Your task to perform on an android device: Open calendar and show me the second week of next month Image 0: 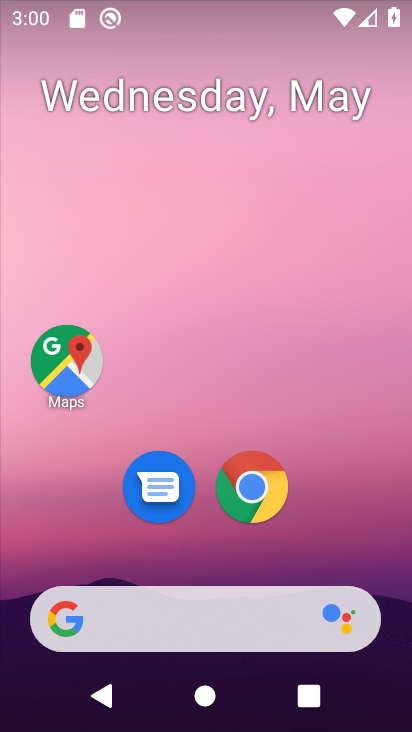
Step 0: drag from (343, 564) to (220, 8)
Your task to perform on an android device: Open calendar and show me the second week of next month Image 1: 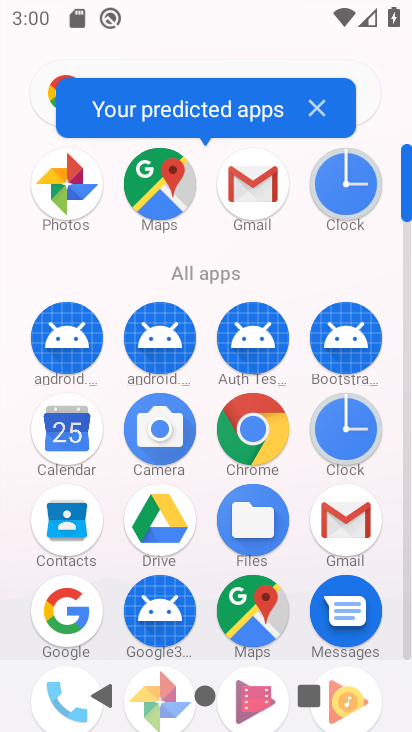
Step 1: drag from (3, 568) to (15, 297)
Your task to perform on an android device: Open calendar and show me the second week of next month Image 2: 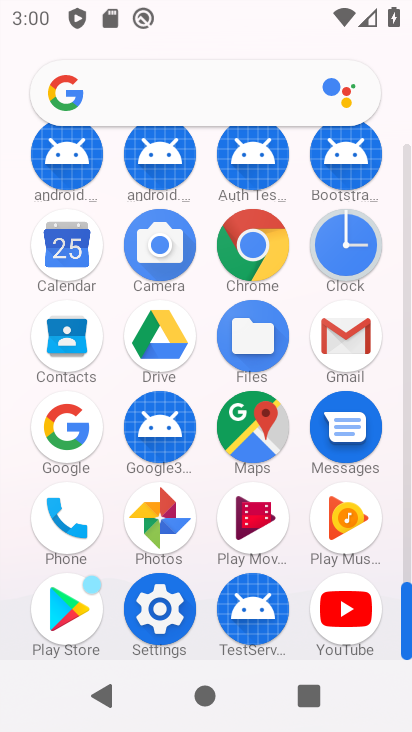
Step 2: click (63, 236)
Your task to perform on an android device: Open calendar and show me the second week of next month Image 3: 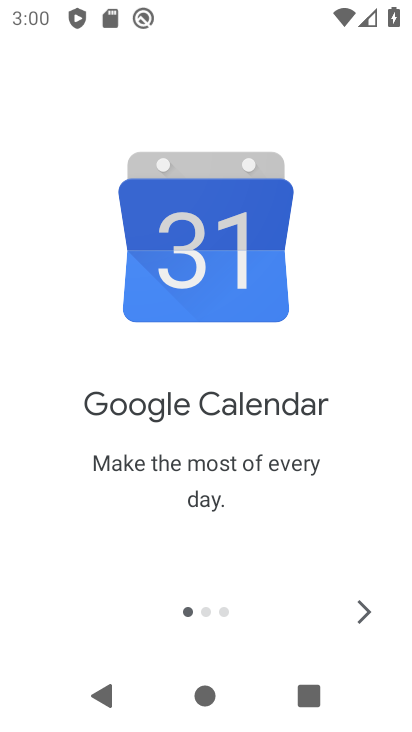
Step 3: click (365, 608)
Your task to perform on an android device: Open calendar and show me the second week of next month Image 4: 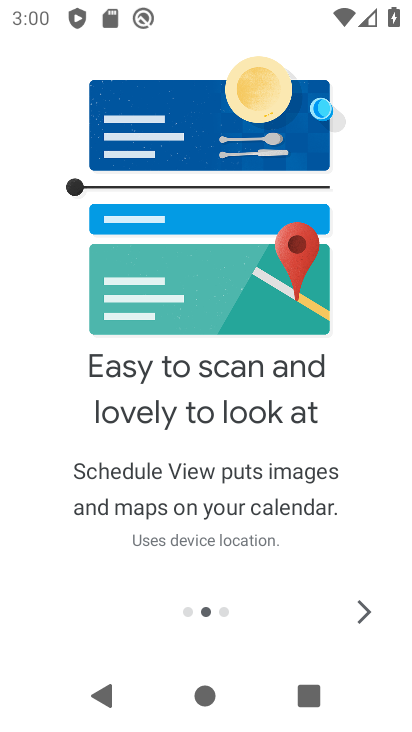
Step 4: click (365, 608)
Your task to perform on an android device: Open calendar and show me the second week of next month Image 5: 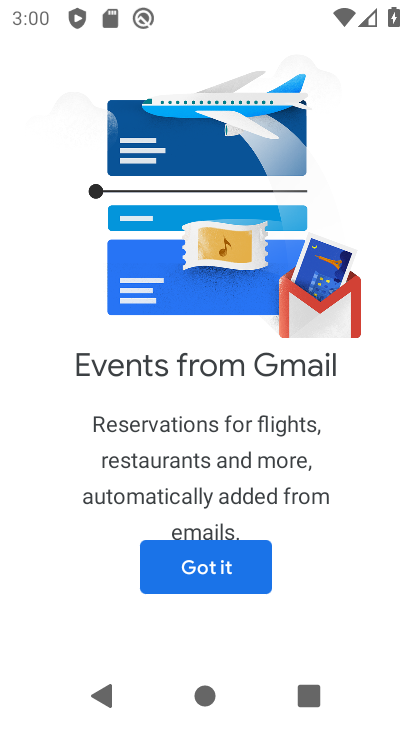
Step 5: click (256, 562)
Your task to perform on an android device: Open calendar and show me the second week of next month Image 6: 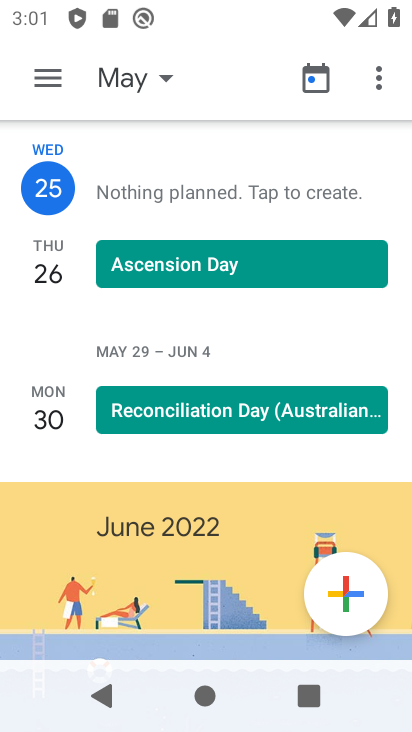
Step 6: click (140, 72)
Your task to perform on an android device: Open calendar and show me the second week of next month Image 7: 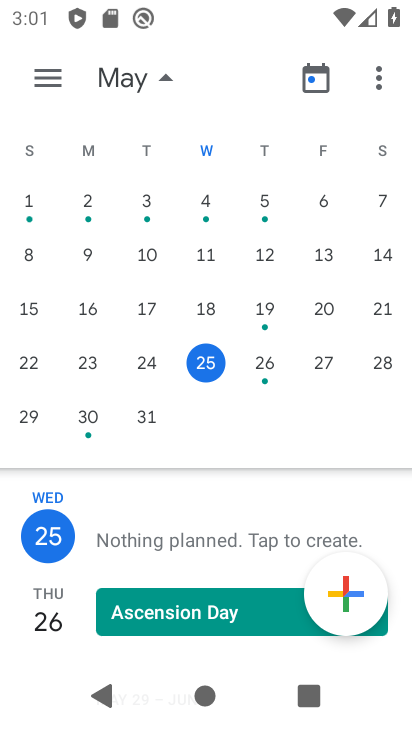
Step 7: drag from (378, 297) to (21, 259)
Your task to perform on an android device: Open calendar and show me the second week of next month Image 8: 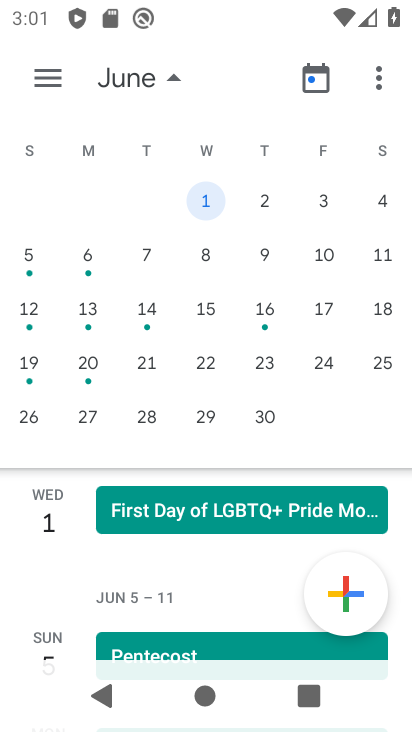
Step 8: click (30, 249)
Your task to perform on an android device: Open calendar and show me the second week of next month Image 9: 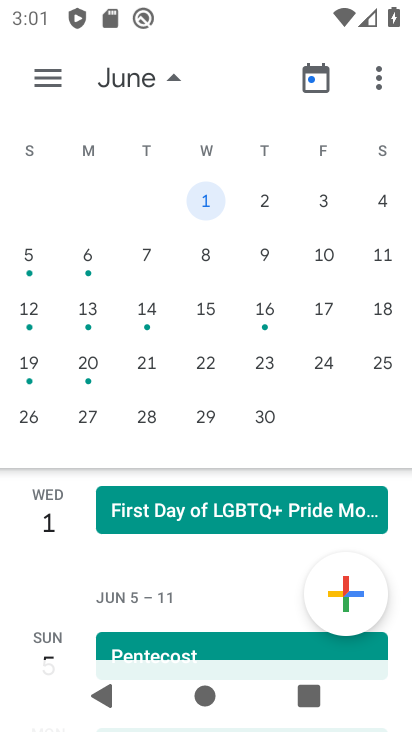
Step 9: click (24, 253)
Your task to perform on an android device: Open calendar and show me the second week of next month Image 10: 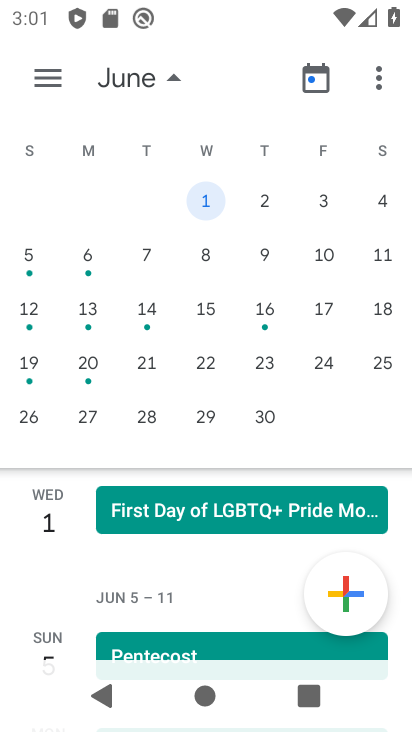
Step 10: click (27, 253)
Your task to perform on an android device: Open calendar and show me the second week of next month Image 11: 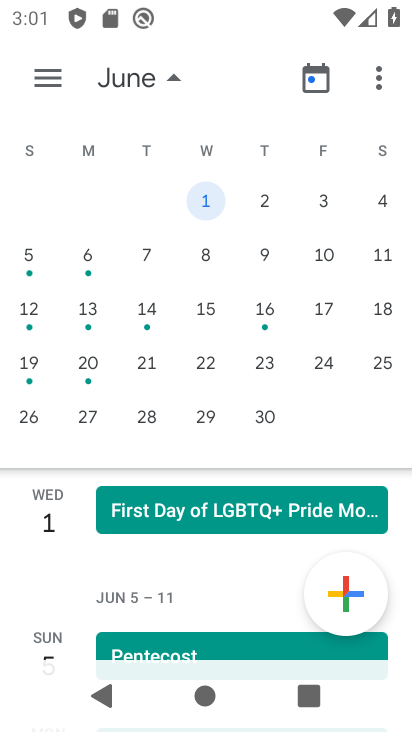
Step 11: click (29, 252)
Your task to perform on an android device: Open calendar and show me the second week of next month Image 12: 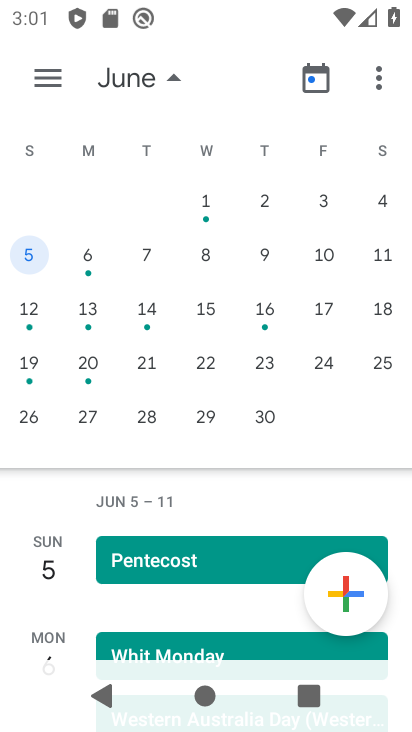
Step 12: click (47, 66)
Your task to perform on an android device: Open calendar and show me the second week of next month Image 13: 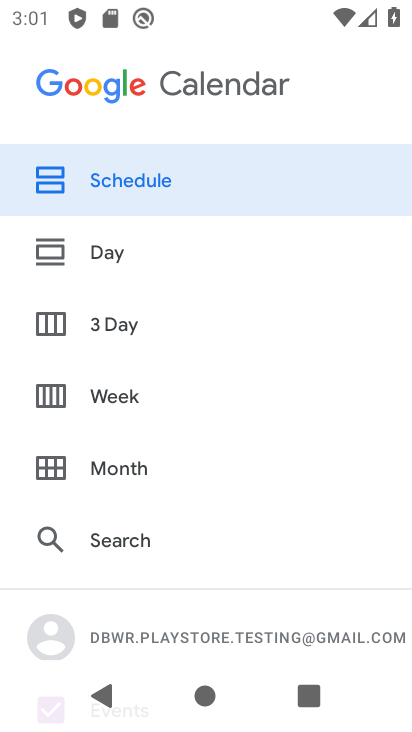
Step 13: click (115, 381)
Your task to perform on an android device: Open calendar and show me the second week of next month Image 14: 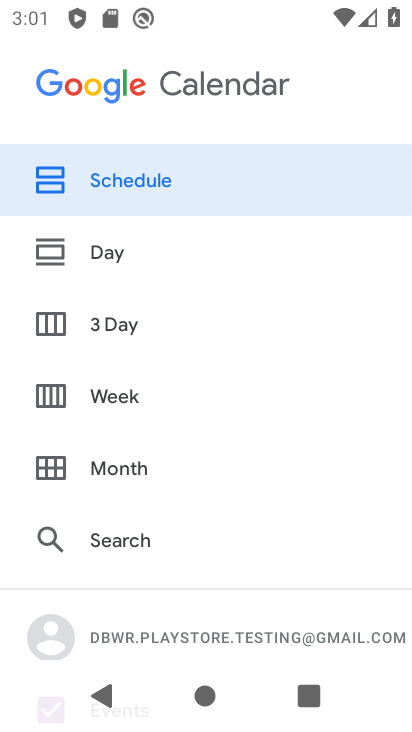
Step 14: click (120, 395)
Your task to perform on an android device: Open calendar and show me the second week of next month Image 15: 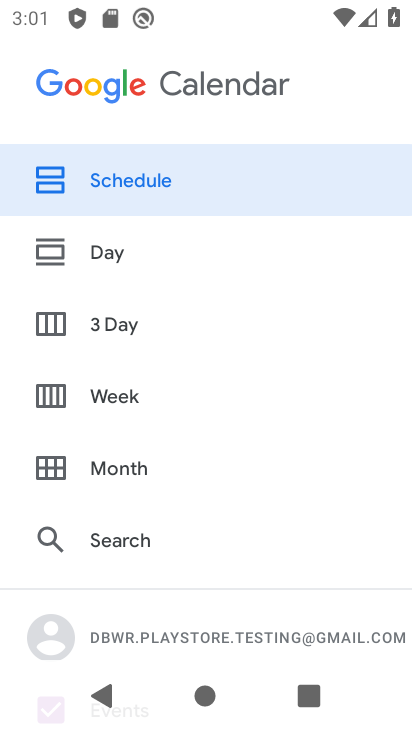
Step 15: click (120, 395)
Your task to perform on an android device: Open calendar and show me the second week of next month Image 16: 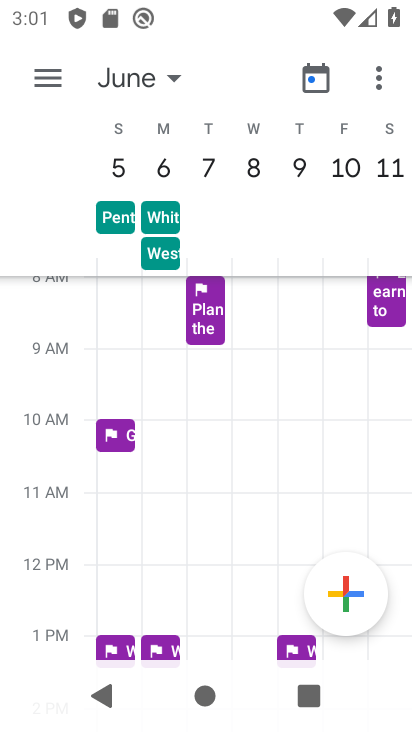
Step 16: task complete